Your task to perform on an android device: turn on wifi Image 0: 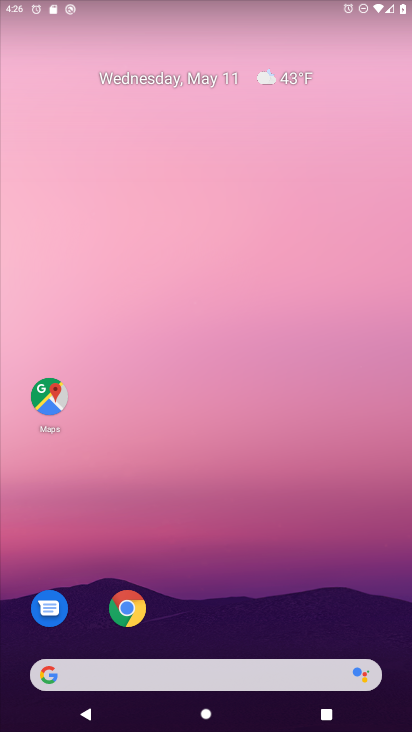
Step 0: drag from (221, 719) to (218, 447)
Your task to perform on an android device: turn on wifi Image 1: 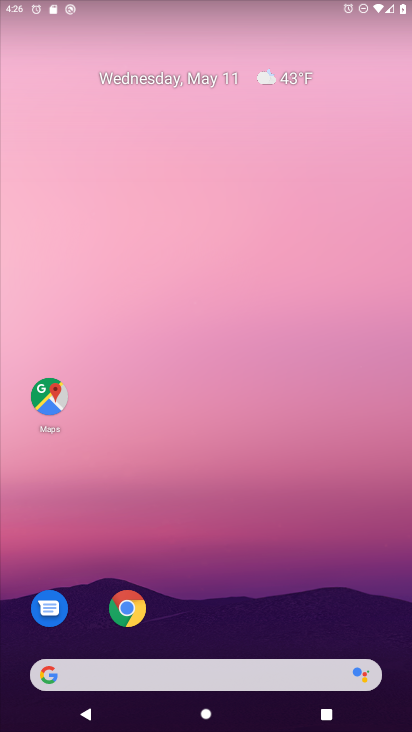
Step 1: drag from (228, 728) to (236, 1)
Your task to perform on an android device: turn on wifi Image 2: 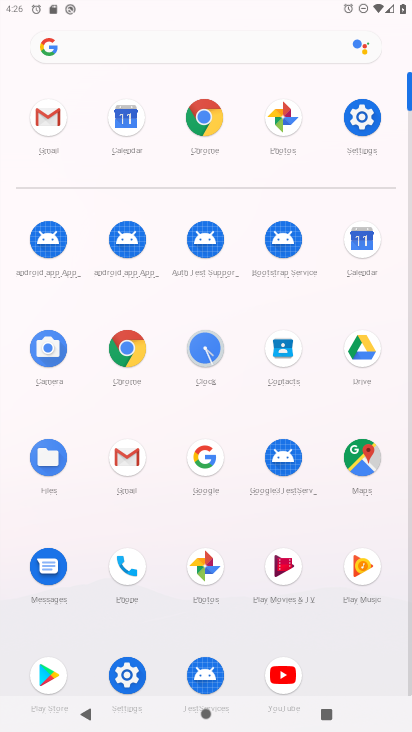
Step 2: click (363, 124)
Your task to perform on an android device: turn on wifi Image 3: 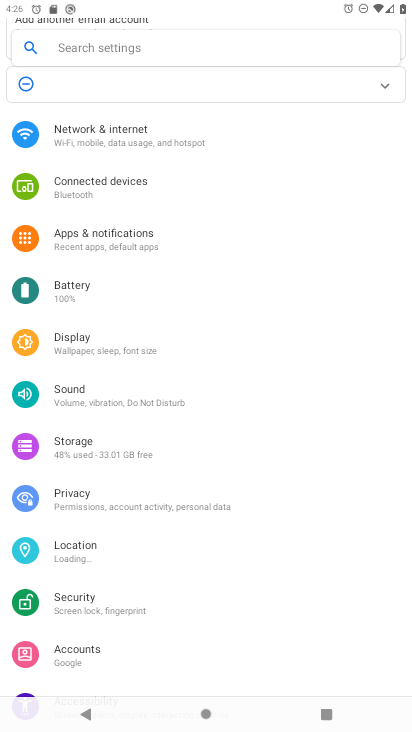
Step 3: click (111, 126)
Your task to perform on an android device: turn on wifi Image 4: 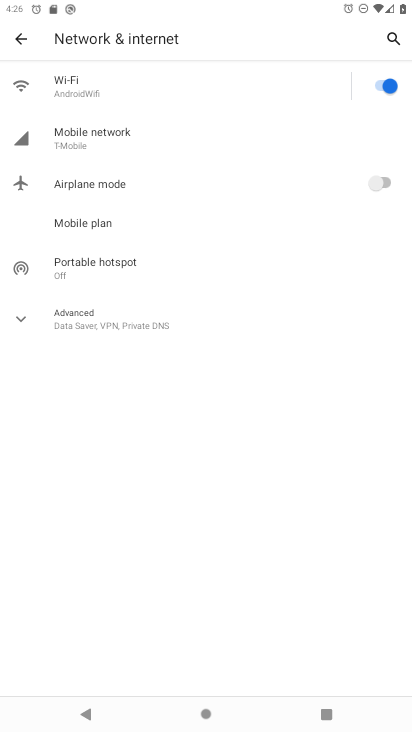
Step 4: task complete